Your task to perform on an android device: Open CNN.com Image 0: 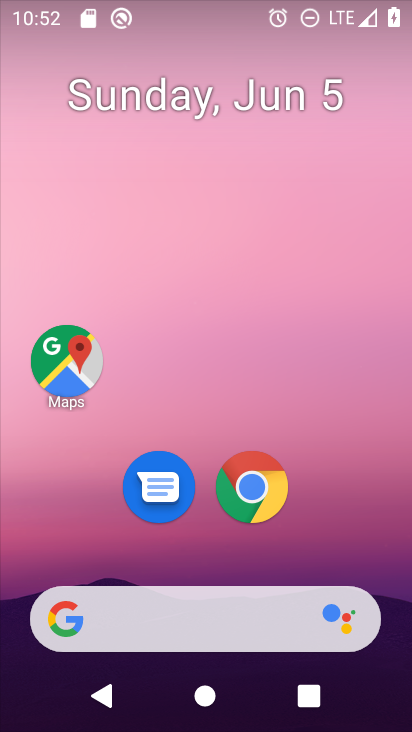
Step 0: click (236, 475)
Your task to perform on an android device: Open CNN.com Image 1: 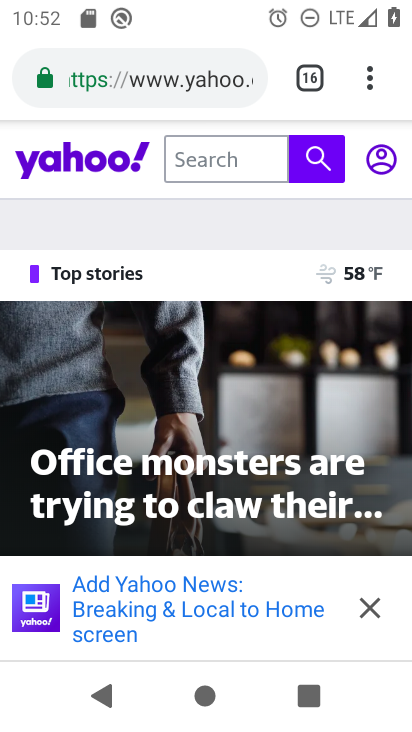
Step 1: click (385, 63)
Your task to perform on an android device: Open CNN.com Image 2: 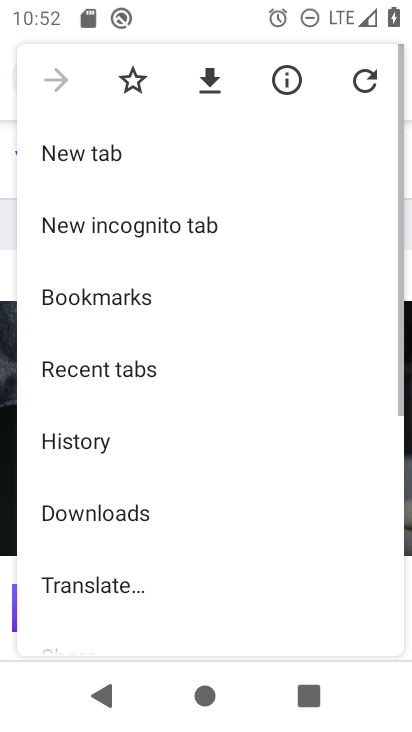
Step 2: click (173, 144)
Your task to perform on an android device: Open CNN.com Image 3: 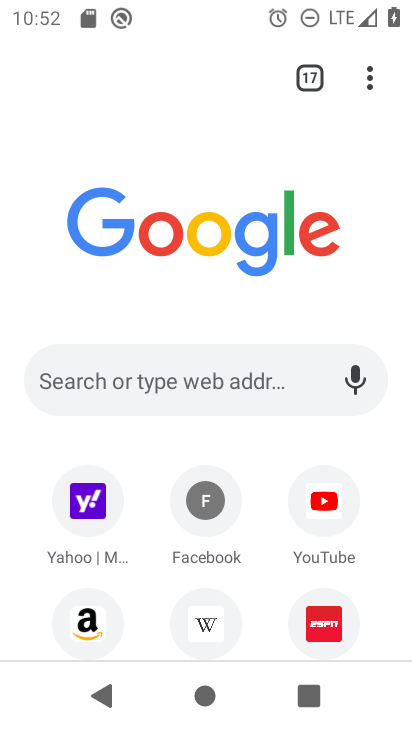
Step 3: drag from (259, 577) to (274, 439)
Your task to perform on an android device: Open CNN.com Image 4: 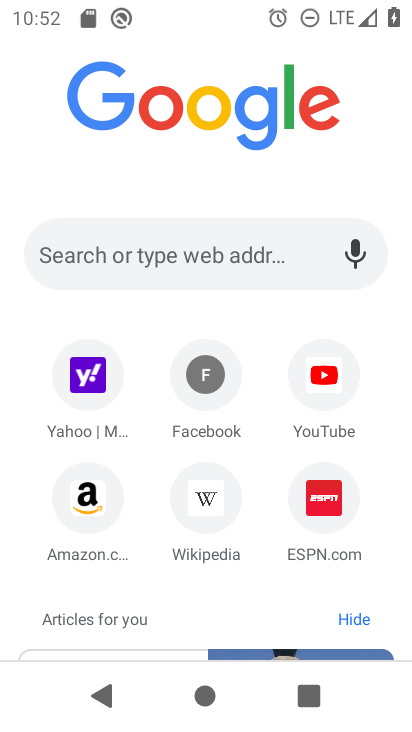
Step 4: click (186, 241)
Your task to perform on an android device: Open CNN.com Image 5: 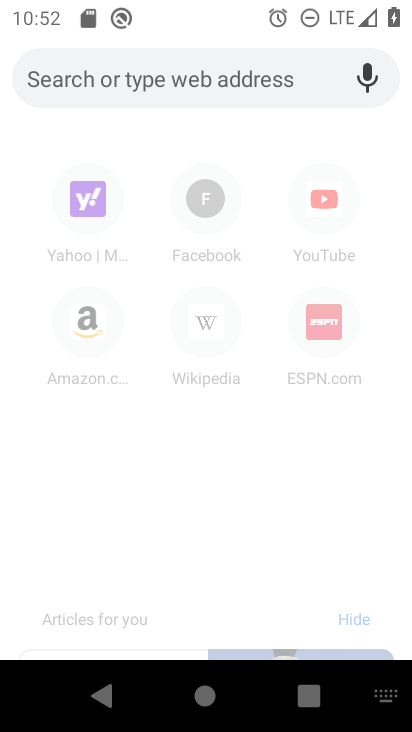
Step 5: type "CNN.com"
Your task to perform on an android device: Open CNN.com Image 6: 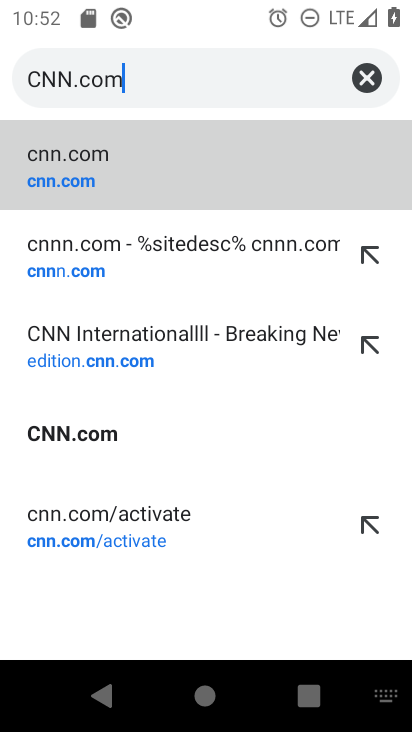
Step 6: click (278, 154)
Your task to perform on an android device: Open CNN.com Image 7: 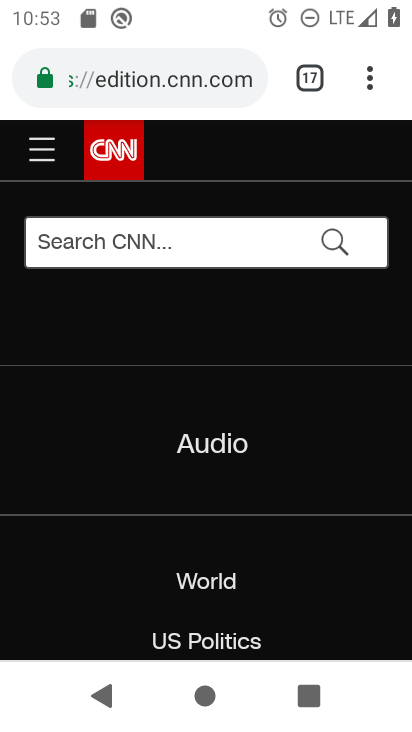
Step 7: task complete